Your task to perform on an android device: visit the assistant section in the google photos Image 0: 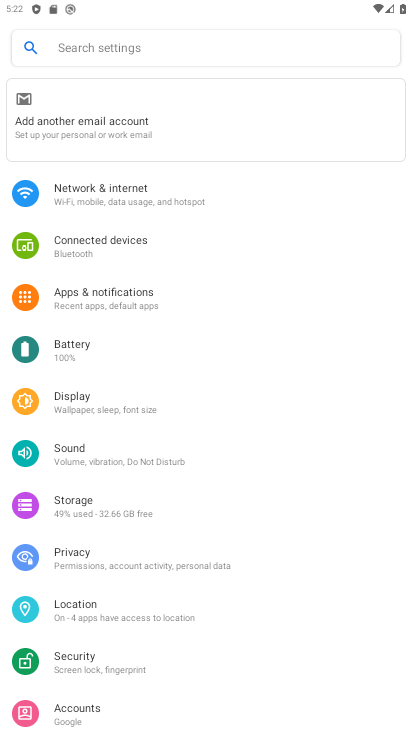
Step 0: press back button
Your task to perform on an android device: visit the assistant section in the google photos Image 1: 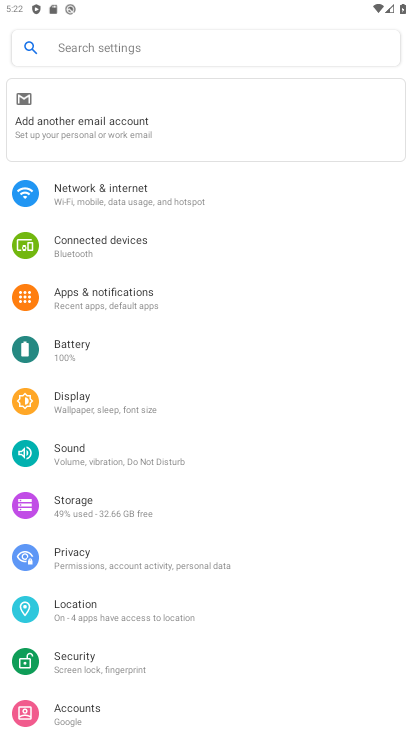
Step 1: press back button
Your task to perform on an android device: visit the assistant section in the google photos Image 2: 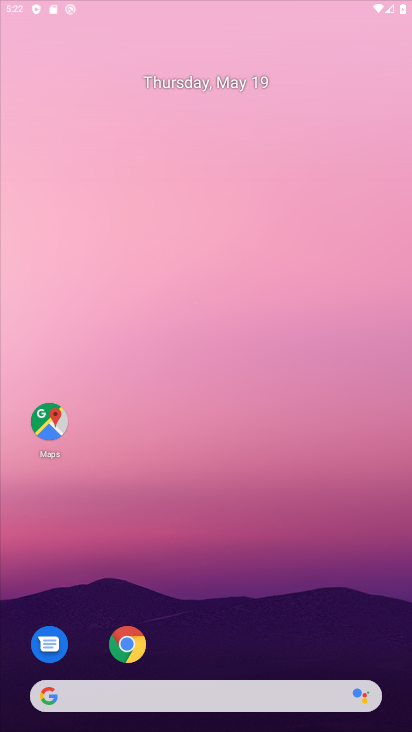
Step 2: press back button
Your task to perform on an android device: visit the assistant section in the google photos Image 3: 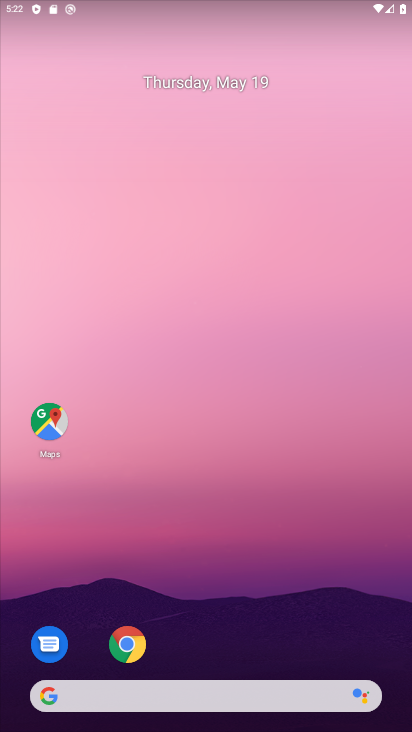
Step 3: drag from (280, 681) to (154, 85)
Your task to perform on an android device: visit the assistant section in the google photos Image 4: 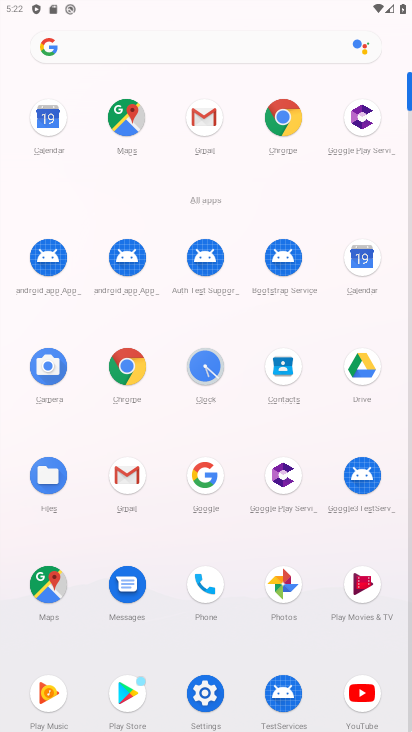
Step 4: click (281, 598)
Your task to perform on an android device: visit the assistant section in the google photos Image 5: 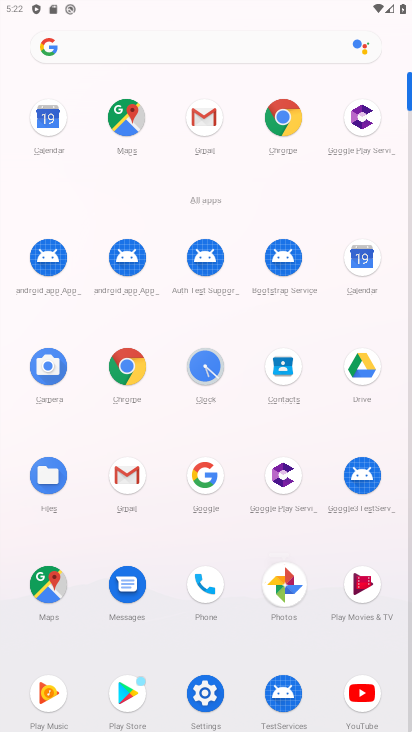
Step 5: click (283, 594)
Your task to perform on an android device: visit the assistant section in the google photos Image 6: 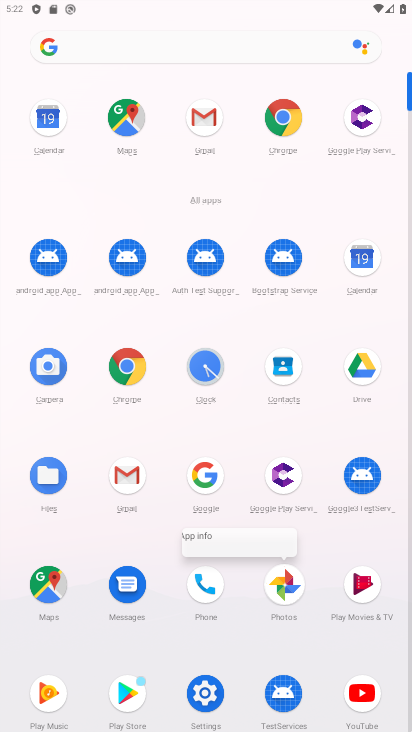
Step 6: click (283, 593)
Your task to perform on an android device: visit the assistant section in the google photos Image 7: 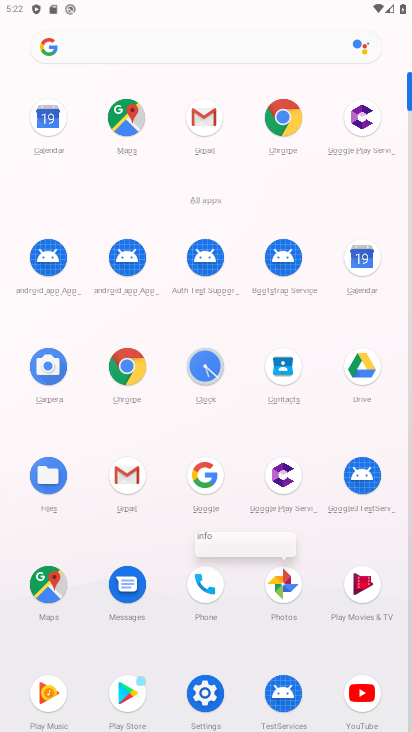
Step 7: click (285, 592)
Your task to perform on an android device: visit the assistant section in the google photos Image 8: 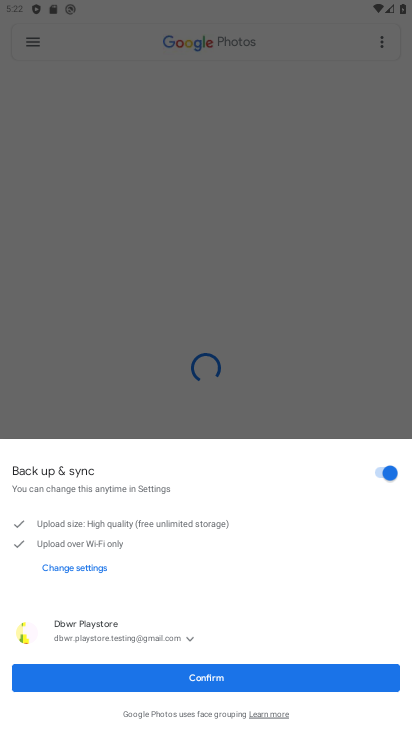
Step 8: click (221, 693)
Your task to perform on an android device: visit the assistant section in the google photos Image 9: 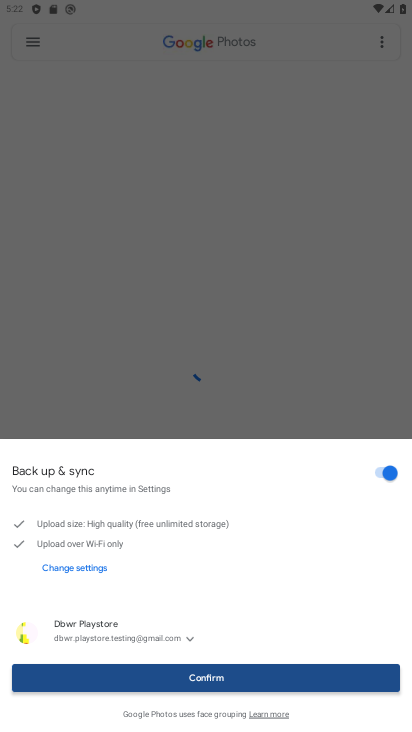
Step 9: click (222, 685)
Your task to perform on an android device: visit the assistant section in the google photos Image 10: 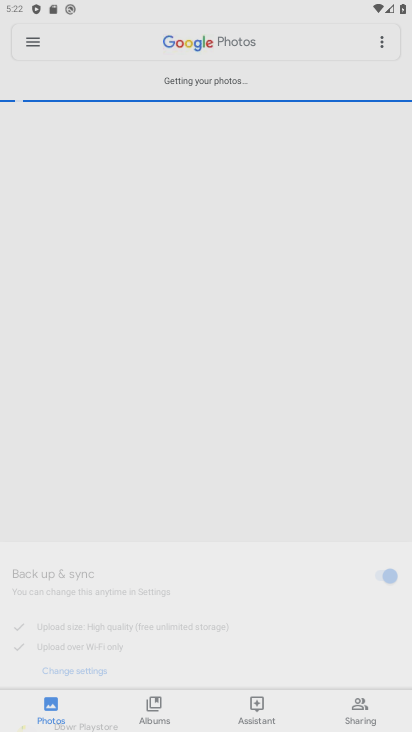
Step 10: click (224, 676)
Your task to perform on an android device: visit the assistant section in the google photos Image 11: 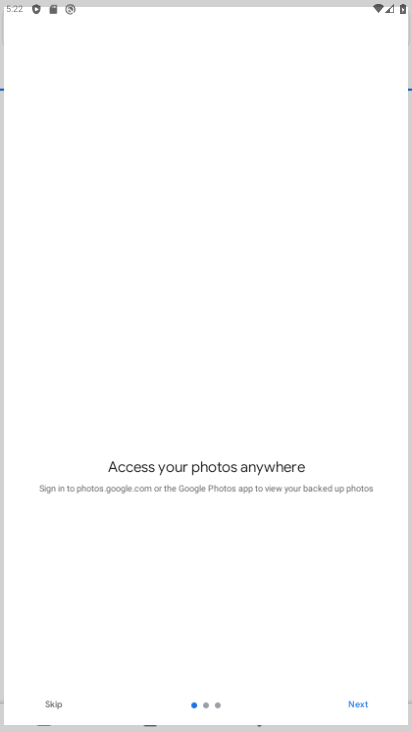
Step 11: click (226, 676)
Your task to perform on an android device: visit the assistant section in the google photos Image 12: 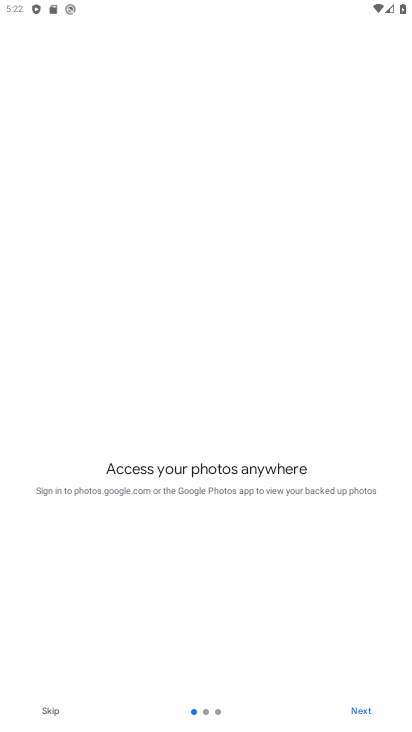
Step 12: click (363, 698)
Your task to perform on an android device: visit the assistant section in the google photos Image 13: 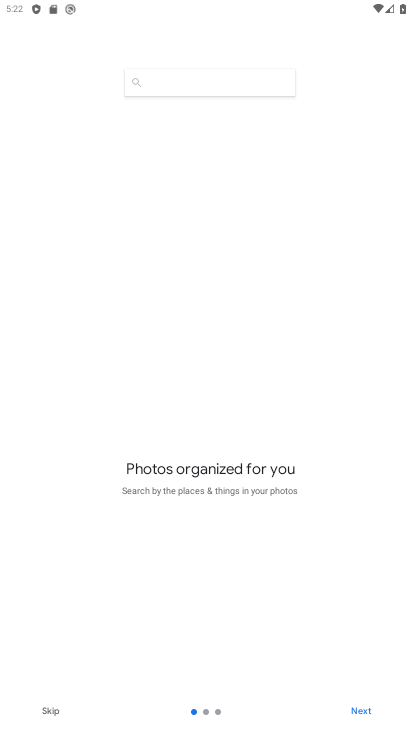
Step 13: click (363, 698)
Your task to perform on an android device: visit the assistant section in the google photos Image 14: 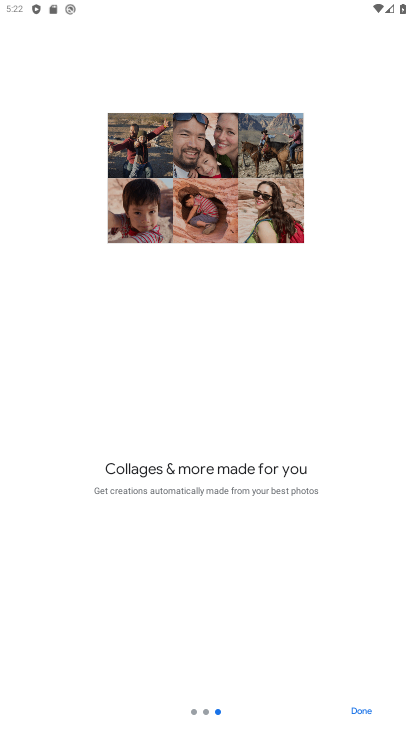
Step 14: click (364, 708)
Your task to perform on an android device: visit the assistant section in the google photos Image 15: 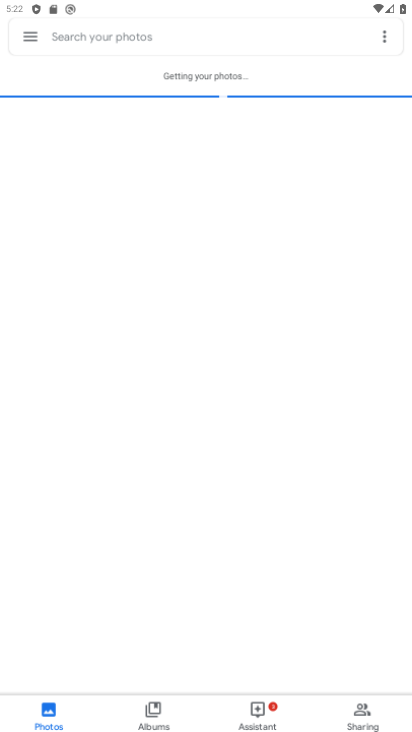
Step 15: click (366, 705)
Your task to perform on an android device: visit the assistant section in the google photos Image 16: 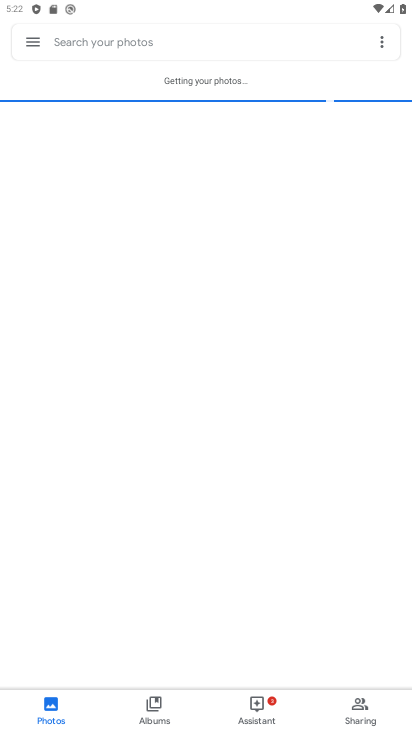
Step 16: click (371, 700)
Your task to perform on an android device: visit the assistant section in the google photos Image 17: 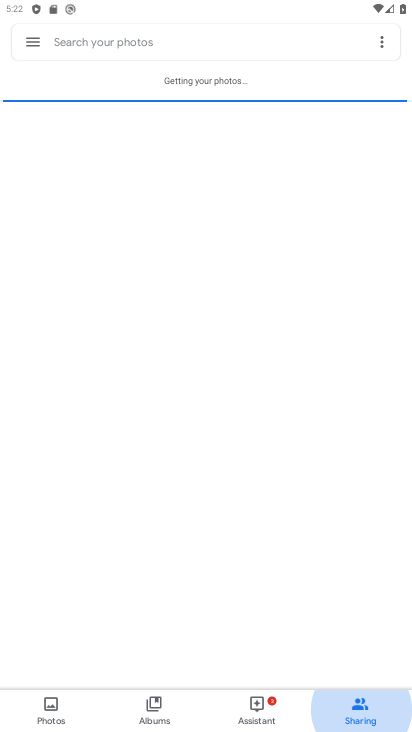
Step 17: click (372, 699)
Your task to perform on an android device: visit the assistant section in the google photos Image 18: 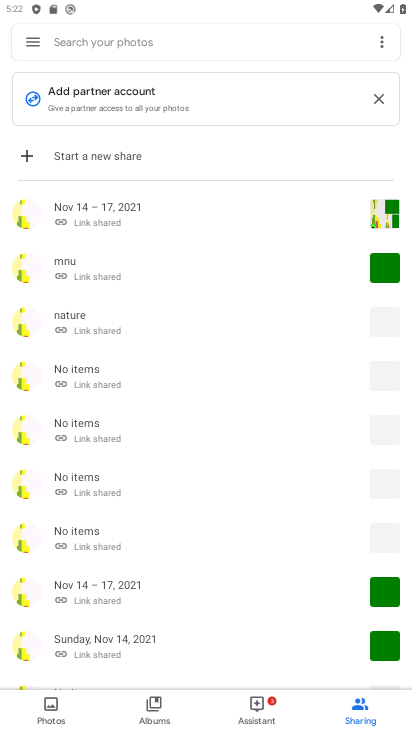
Step 18: press back button
Your task to perform on an android device: visit the assistant section in the google photos Image 19: 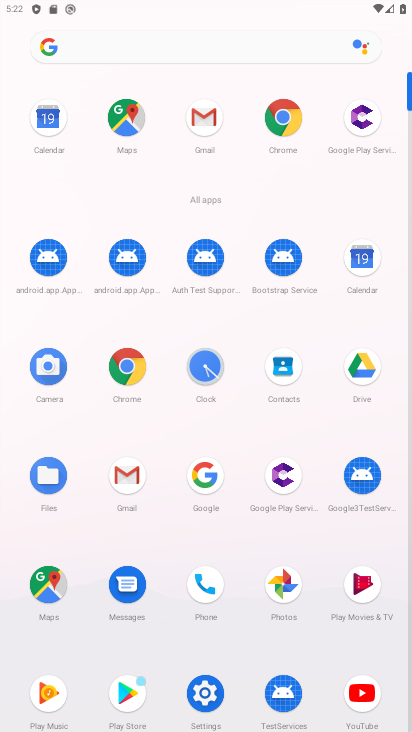
Step 19: click (287, 588)
Your task to perform on an android device: visit the assistant section in the google photos Image 20: 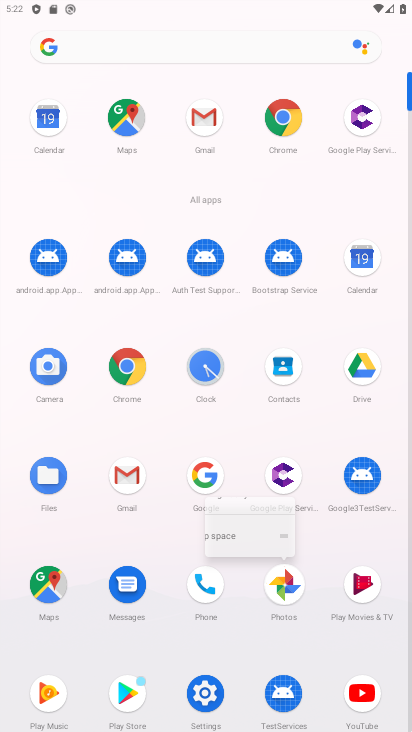
Step 20: click (288, 587)
Your task to perform on an android device: visit the assistant section in the google photos Image 21: 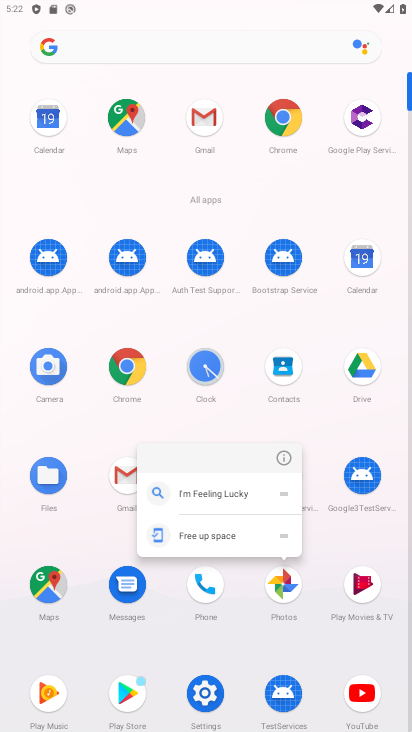
Step 21: click (288, 587)
Your task to perform on an android device: visit the assistant section in the google photos Image 22: 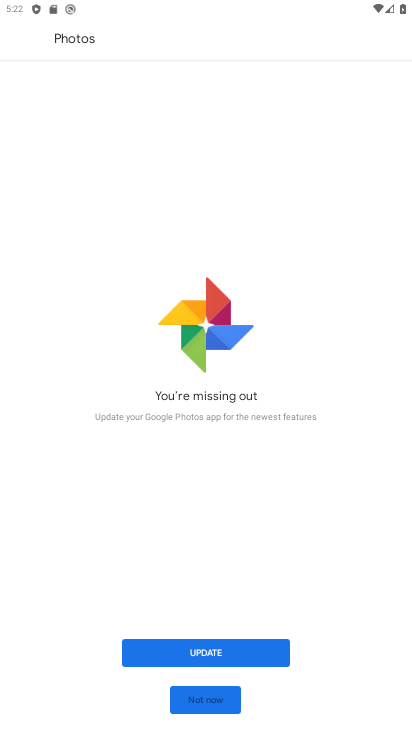
Step 22: click (220, 710)
Your task to perform on an android device: visit the assistant section in the google photos Image 23: 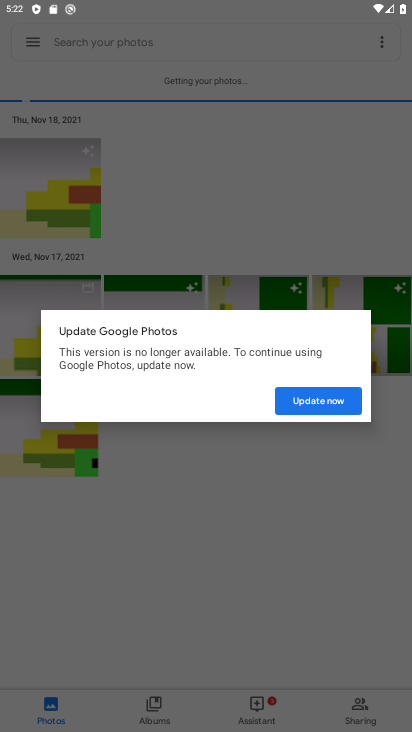
Step 23: click (296, 399)
Your task to perform on an android device: visit the assistant section in the google photos Image 24: 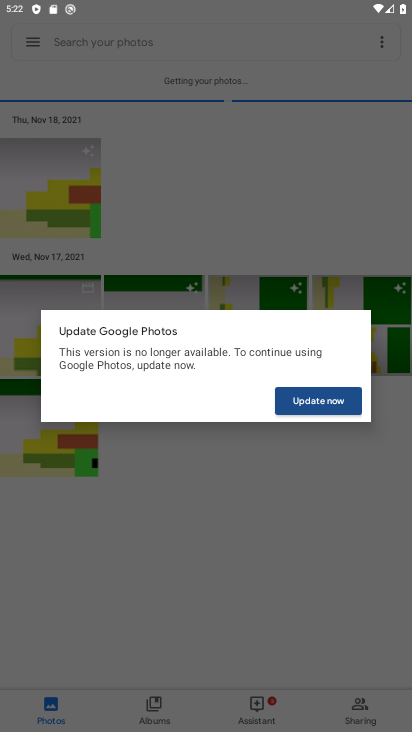
Step 24: click (296, 399)
Your task to perform on an android device: visit the assistant section in the google photos Image 25: 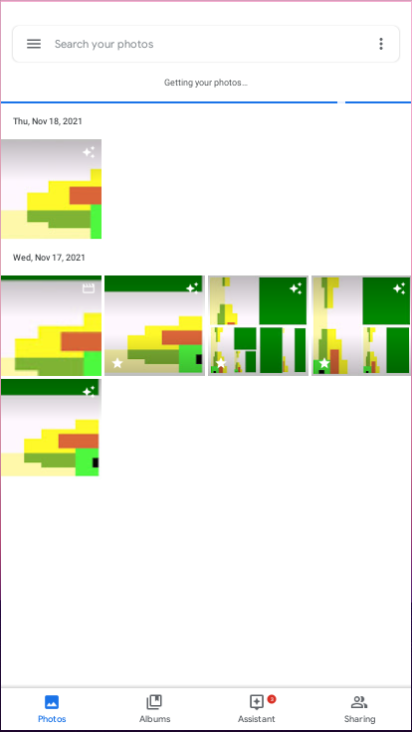
Step 25: click (297, 398)
Your task to perform on an android device: visit the assistant section in the google photos Image 26: 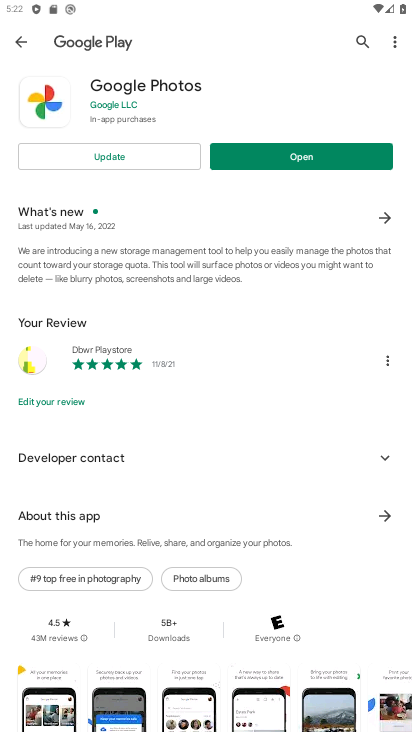
Step 26: press back button
Your task to perform on an android device: visit the assistant section in the google photos Image 27: 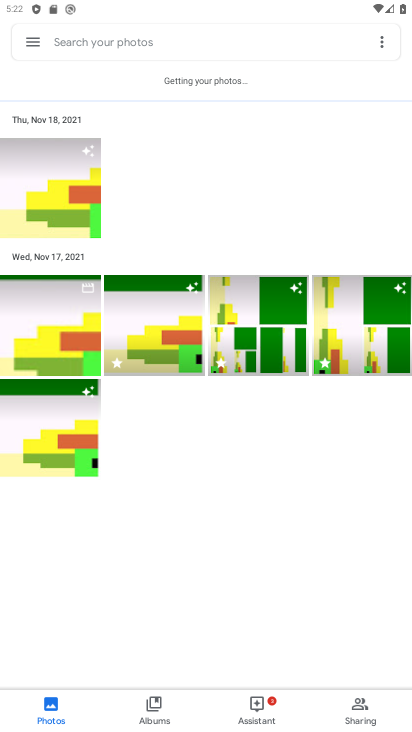
Step 27: click (253, 705)
Your task to perform on an android device: visit the assistant section in the google photos Image 28: 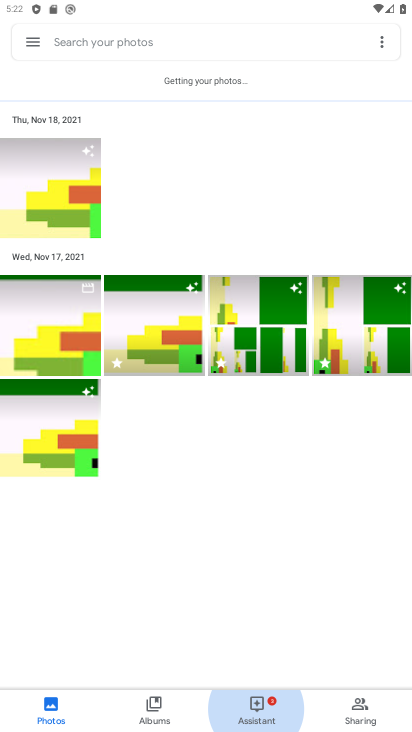
Step 28: click (257, 702)
Your task to perform on an android device: visit the assistant section in the google photos Image 29: 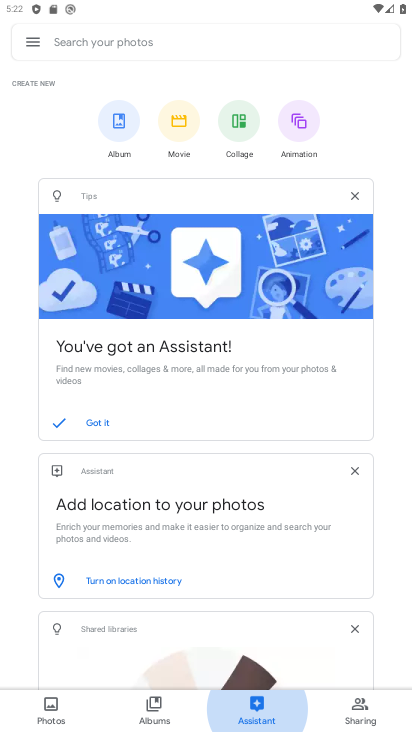
Step 29: click (257, 702)
Your task to perform on an android device: visit the assistant section in the google photos Image 30: 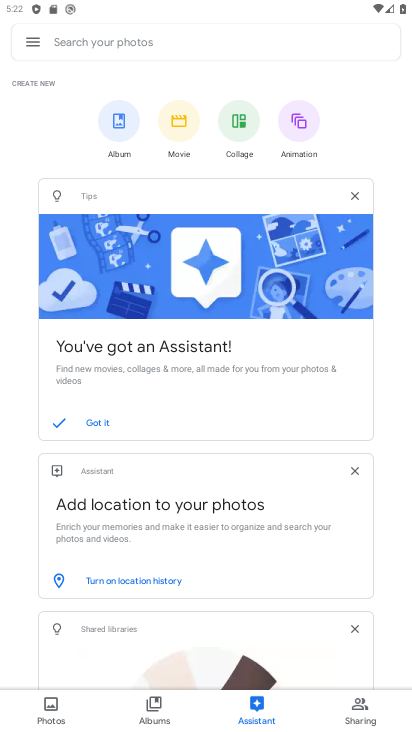
Step 30: task complete